Your task to perform on an android device: toggle wifi Image 0: 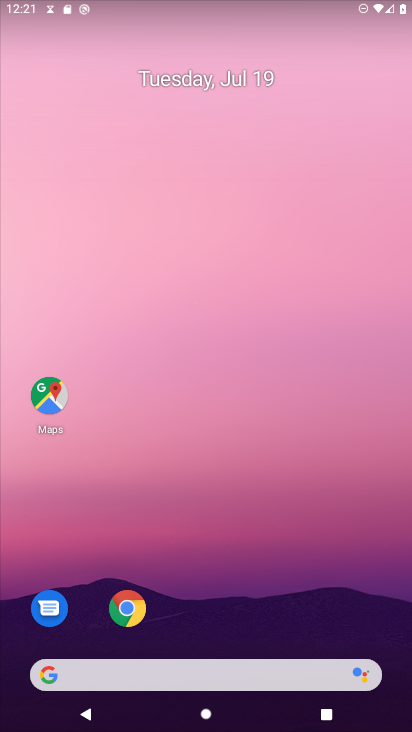
Step 0: drag from (222, 681) to (206, 23)
Your task to perform on an android device: toggle wifi Image 1: 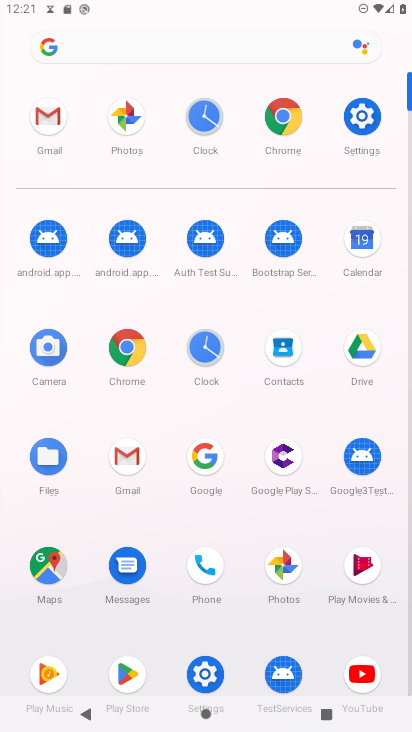
Step 1: click (362, 114)
Your task to perform on an android device: toggle wifi Image 2: 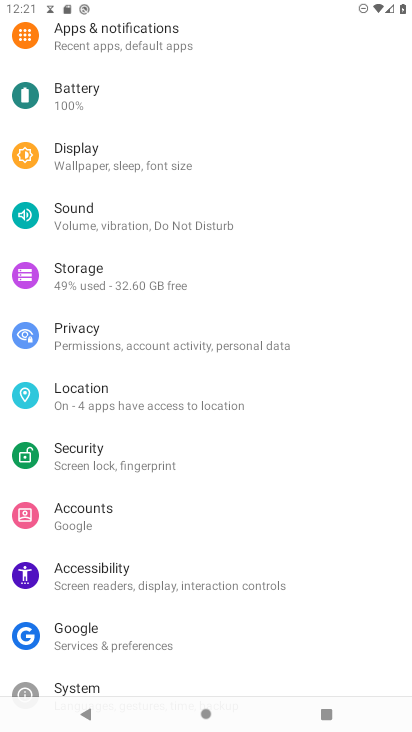
Step 2: drag from (241, 243) to (248, 718)
Your task to perform on an android device: toggle wifi Image 3: 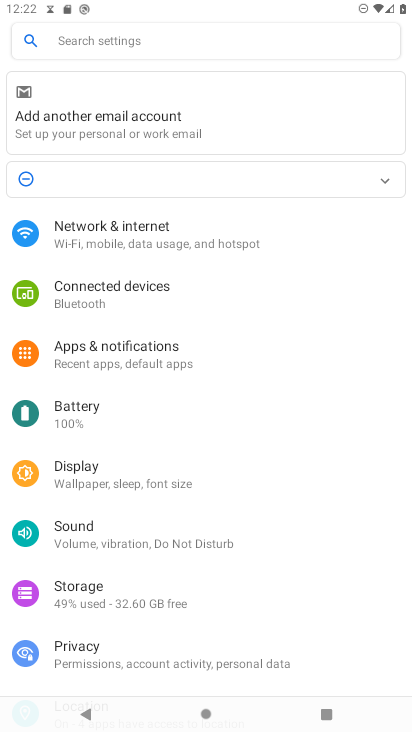
Step 3: click (115, 228)
Your task to perform on an android device: toggle wifi Image 4: 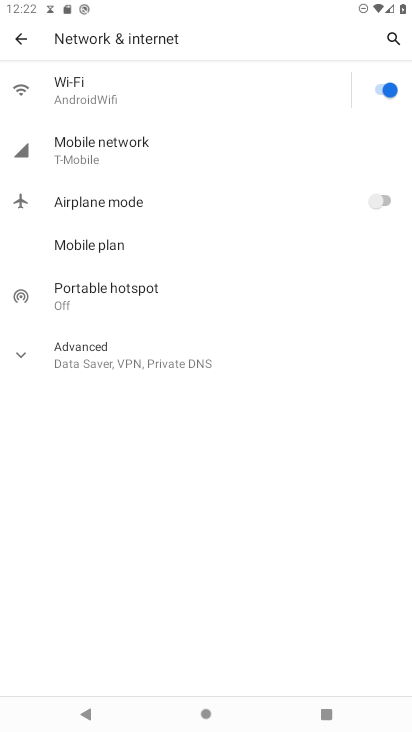
Step 4: click (391, 85)
Your task to perform on an android device: toggle wifi Image 5: 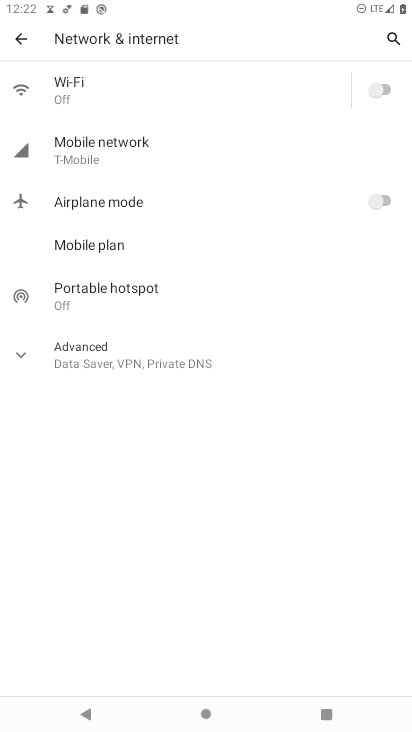
Step 5: task complete